Your task to perform on an android device: find photos in the google photos app Image 0: 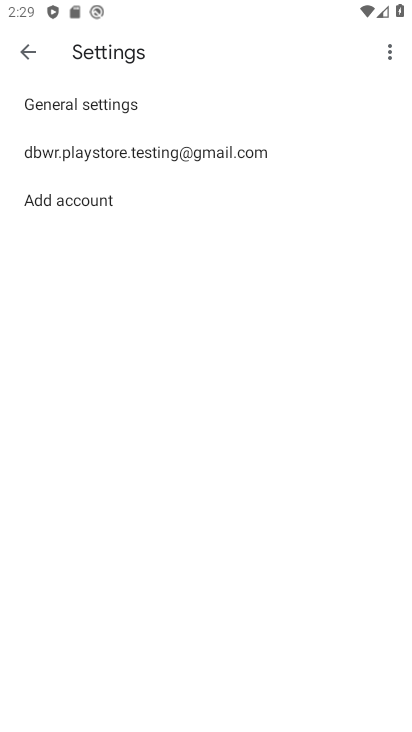
Step 0: press home button
Your task to perform on an android device: find photos in the google photos app Image 1: 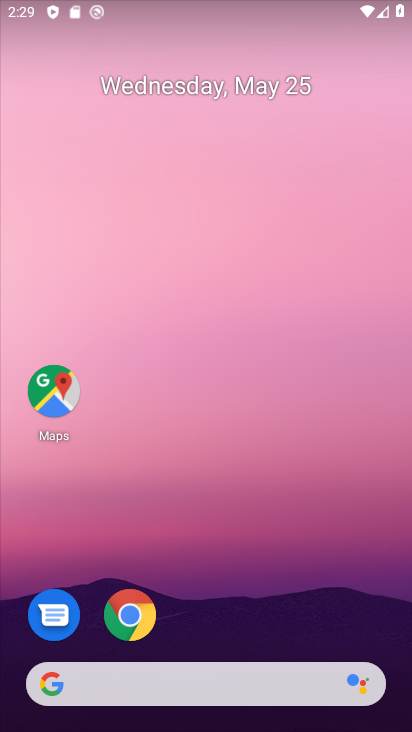
Step 1: drag from (251, 626) to (224, 186)
Your task to perform on an android device: find photos in the google photos app Image 2: 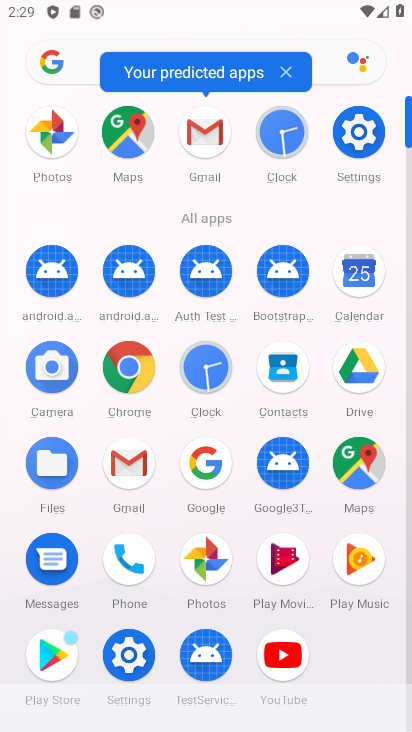
Step 2: click (54, 138)
Your task to perform on an android device: find photos in the google photos app Image 3: 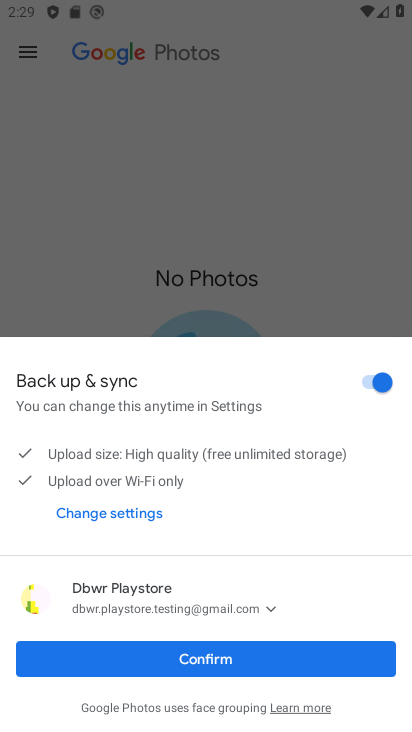
Step 3: click (207, 654)
Your task to perform on an android device: find photos in the google photos app Image 4: 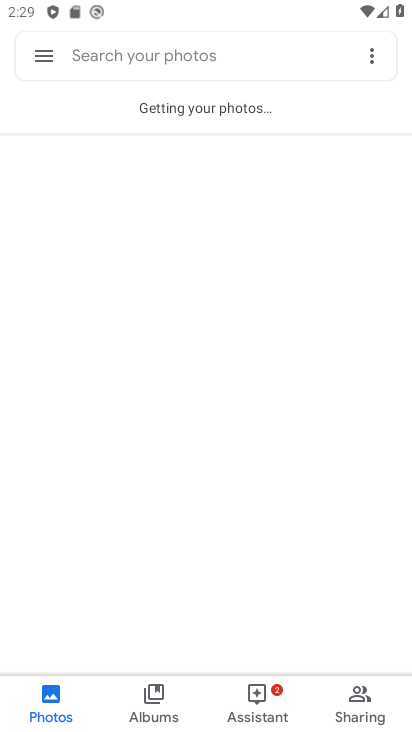
Step 4: task complete